Your task to perform on an android device: Set an alarm for 8pm Image 0: 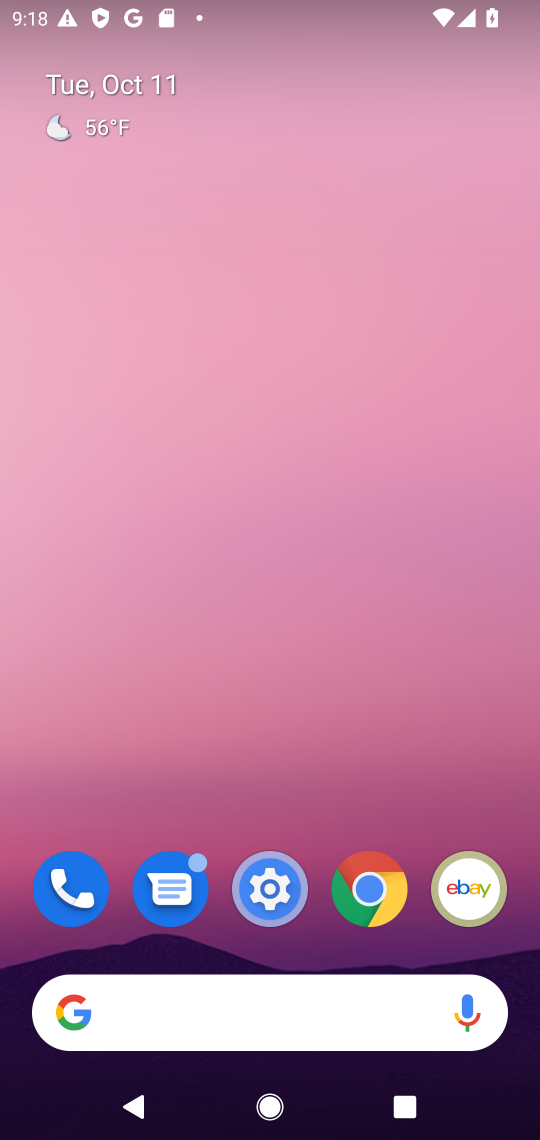
Step 0: drag from (278, 939) to (353, 64)
Your task to perform on an android device: Set an alarm for 8pm Image 1: 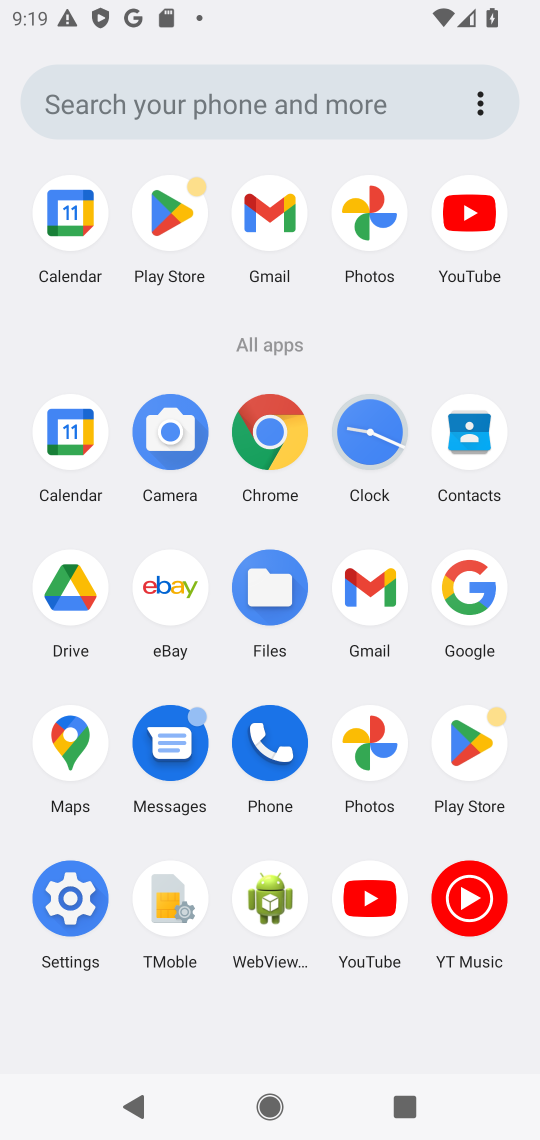
Step 1: click (389, 435)
Your task to perform on an android device: Set an alarm for 8pm Image 2: 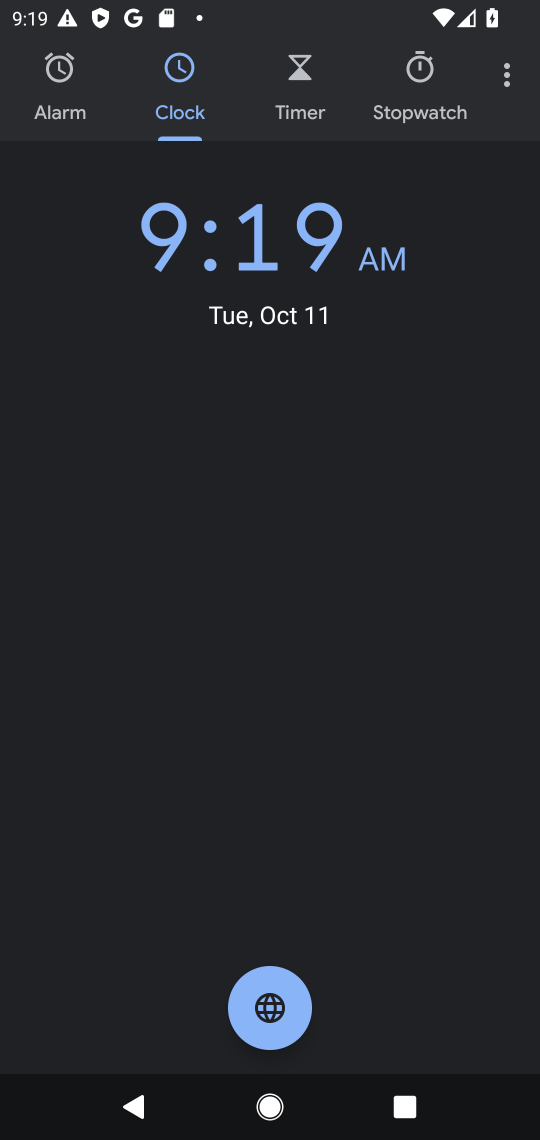
Step 2: click (75, 100)
Your task to perform on an android device: Set an alarm for 8pm Image 3: 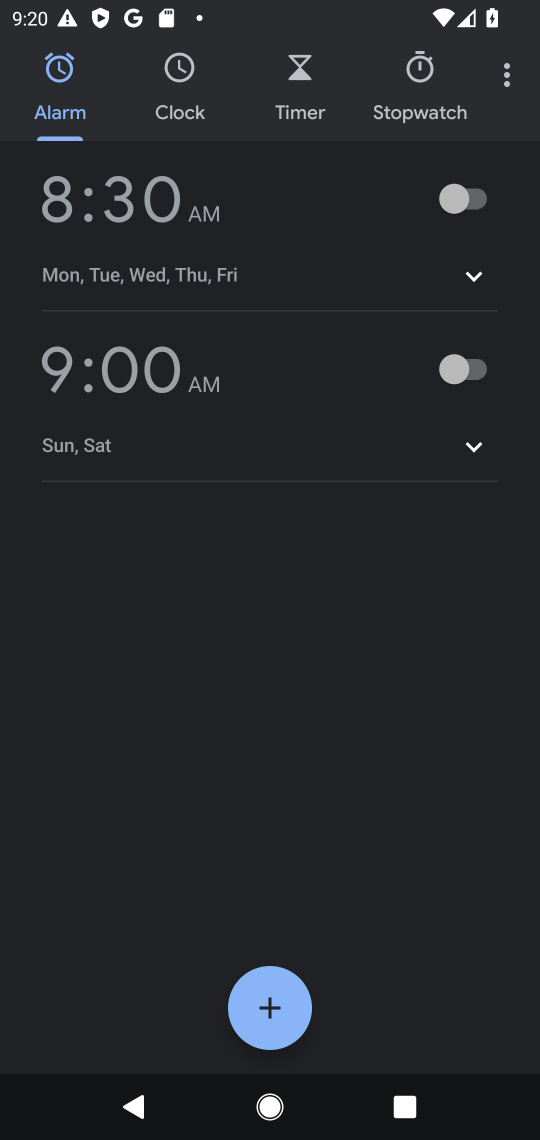
Step 3: click (113, 188)
Your task to perform on an android device: Set an alarm for 8pm Image 4: 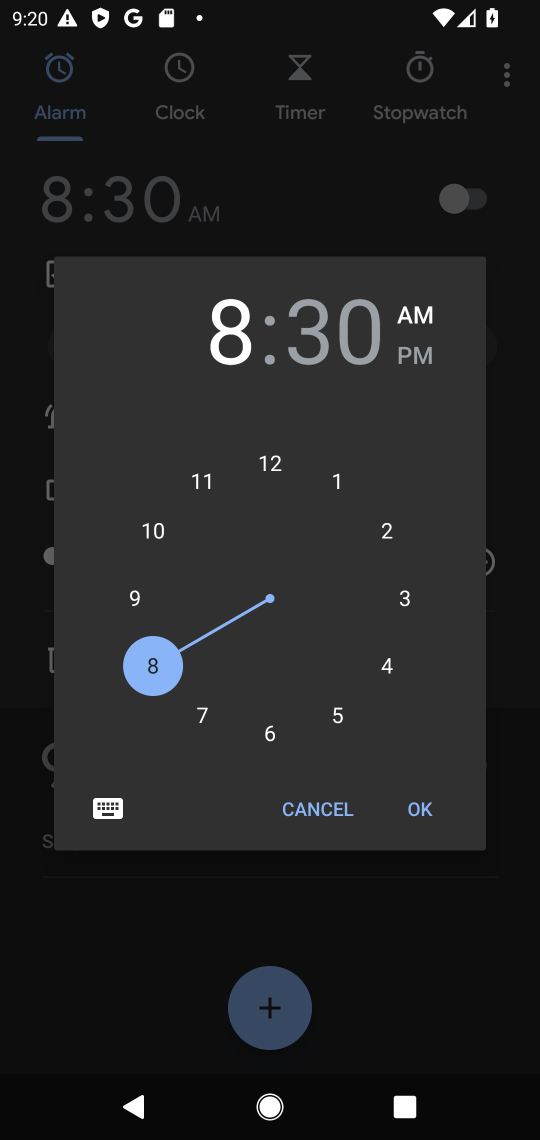
Step 4: click (151, 681)
Your task to perform on an android device: Set an alarm for 8pm Image 5: 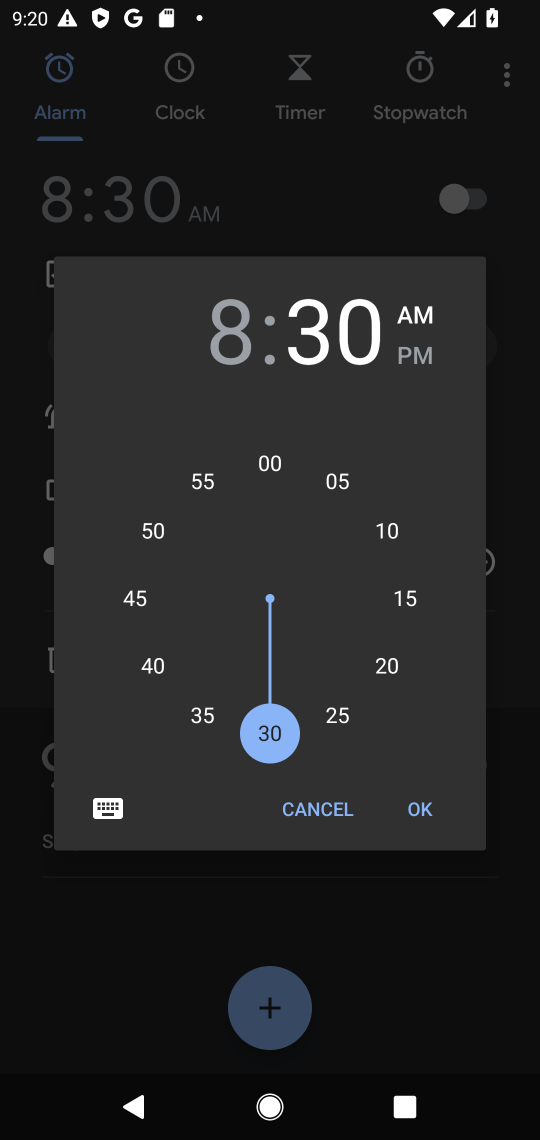
Step 5: click (276, 458)
Your task to perform on an android device: Set an alarm for 8pm Image 6: 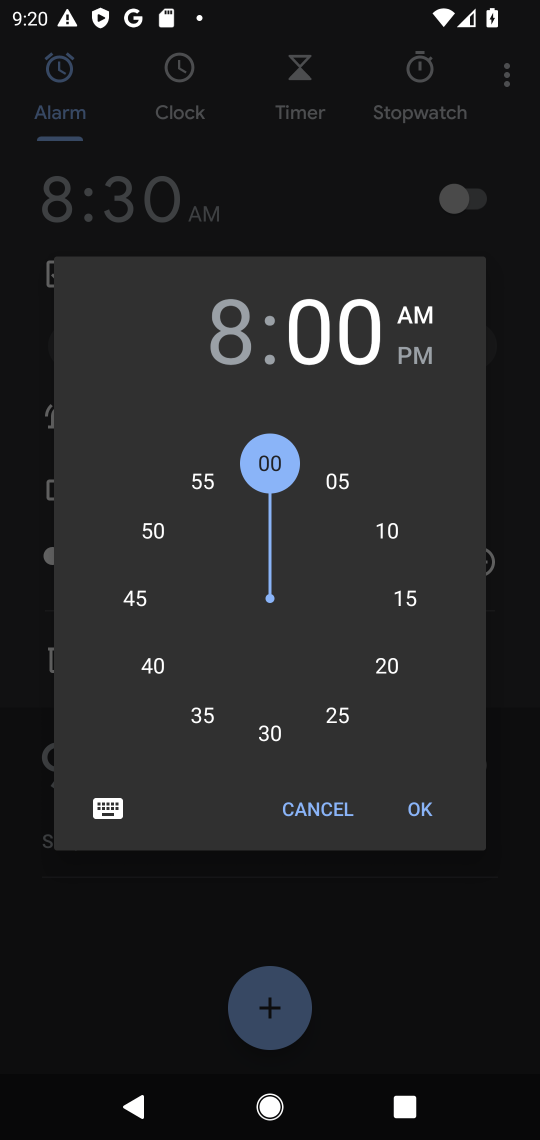
Step 6: click (411, 366)
Your task to perform on an android device: Set an alarm for 8pm Image 7: 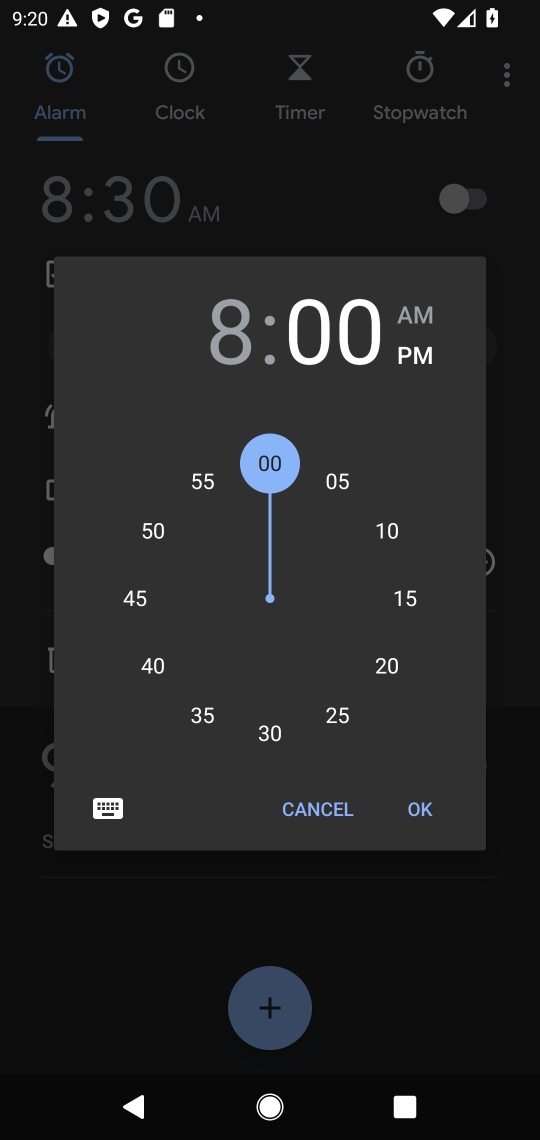
Step 7: click (420, 823)
Your task to perform on an android device: Set an alarm for 8pm Image 8: 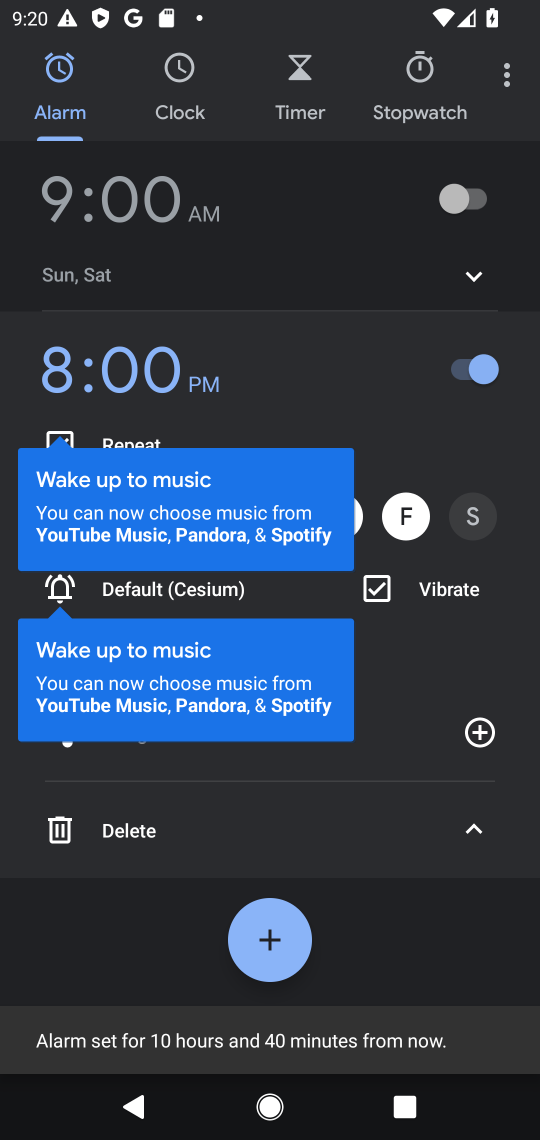
Step 8: task complete